Your task to perform on an android device: turn on the 12-hour format for clock Image 0: 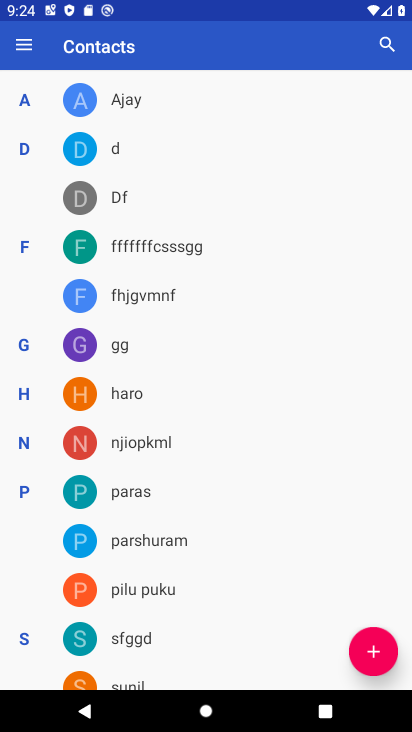
Step 0: press home button
Your task to perform on an android device: turn on the 12-hour format for clock Image 1: 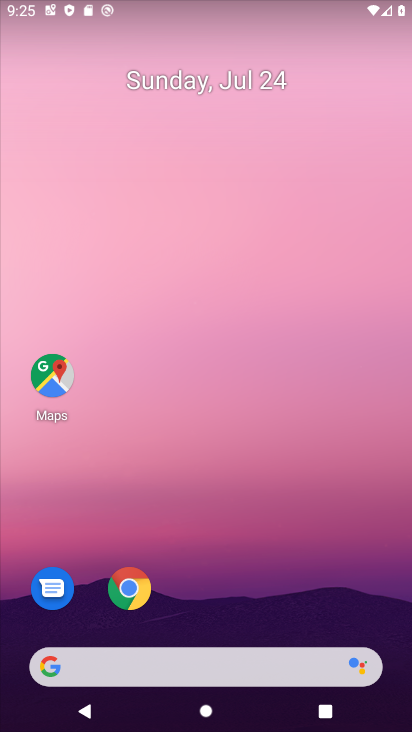
Step 1: drag from (301, 636) to (333, 1)
Your task to perform on an android device: turn on the 12-hour format for clock Image 2: 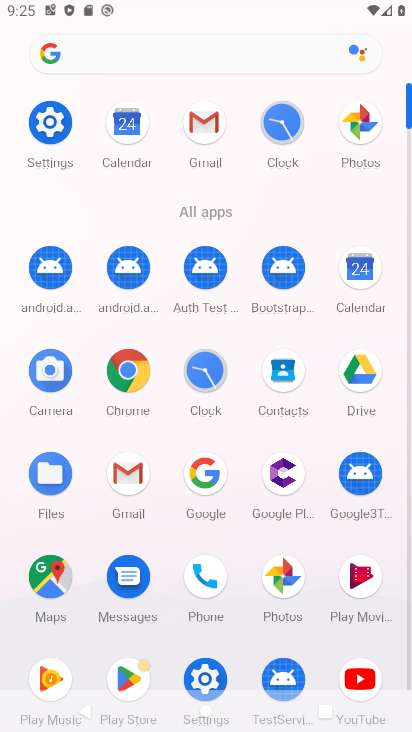
Step 2: click (274, 127)
Your task to perform on an android device: turn on the 12-hour format for clock Image 3: 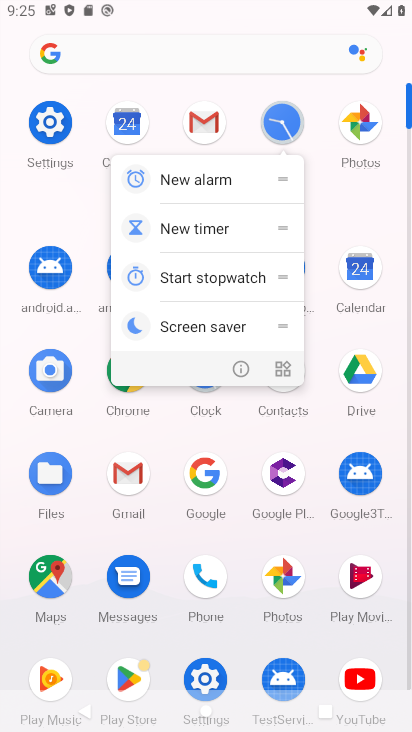
Step 3: click (288, 118)
Your task to perform on an android device: turn on the 12-hour format for clock Image 4: 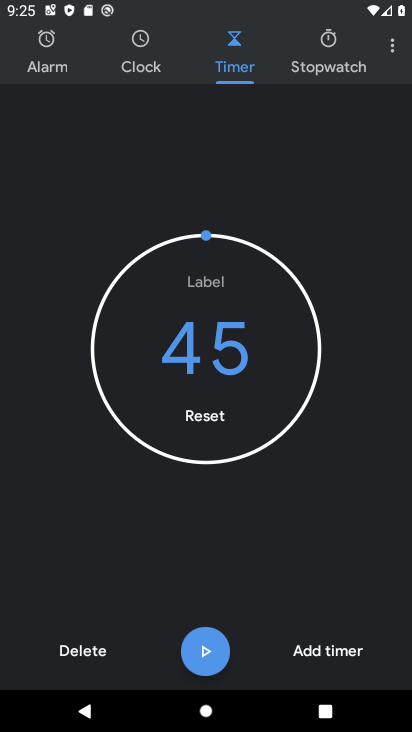
Step 4: click (393, 39)
Your task to perform on an android device: turn on the 12-hour format for clock Image 5: 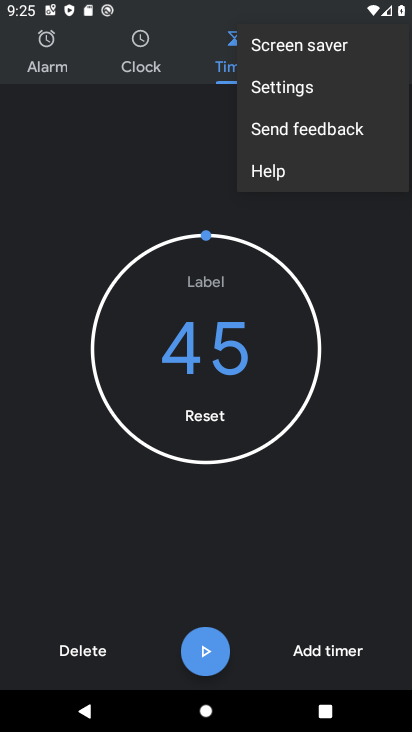
Step 5: click (316, 92)
Your task to perform on an android device: turn on the 12-hour format for clock Image 6: 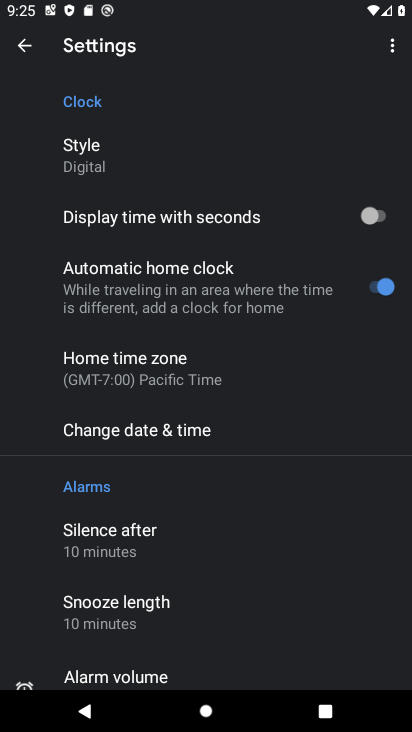
Step 6: click (143, 433)
Your task to perform on an android device: turn on the 12-hour format for clock Image 7: 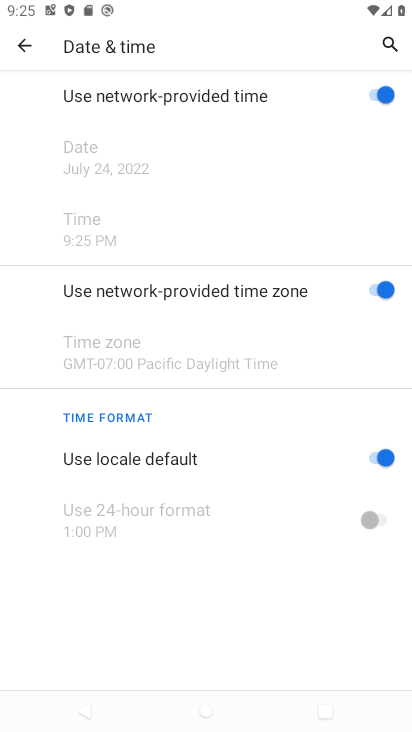
Step 7: task complete